Your task to perform on an android device: find photos in the google photos app Image 0: 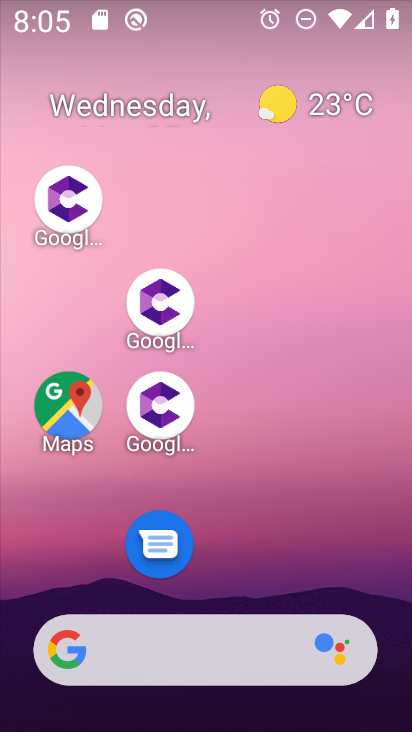
Step 0: drag from (270, 547) to (199, 78)
Your task to perform on an android device: find photos in the google photos app Image 1: 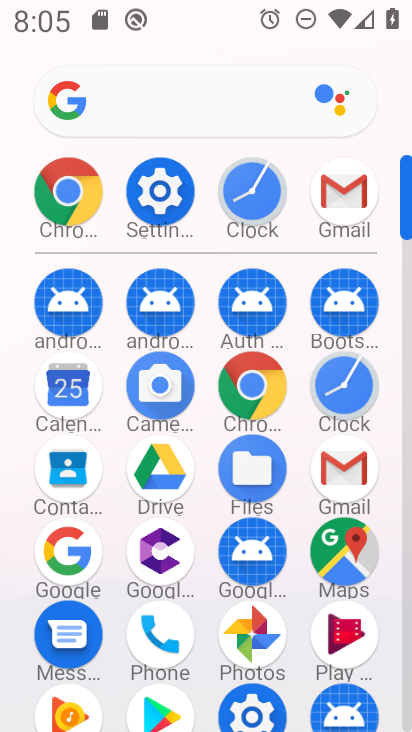
Step 1: click (256, 615)
Your task to perform on an android device: find photos in the google photos app Image 2: 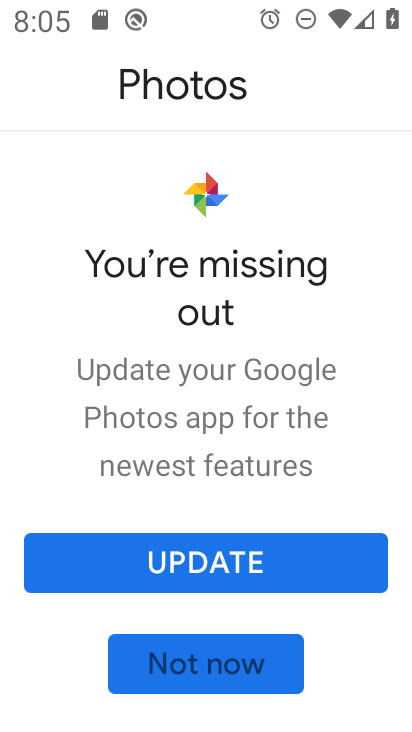
Step 2: click (208, 554)
Your task to perform on an android device: find photos in the google photos app Image 3: 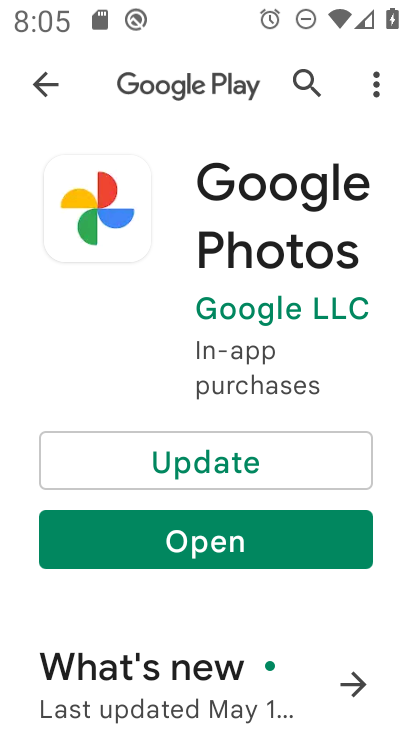
Step 3: click (193, 465)
Your task to perform on an android device: find photos in the google photos app Image 4: 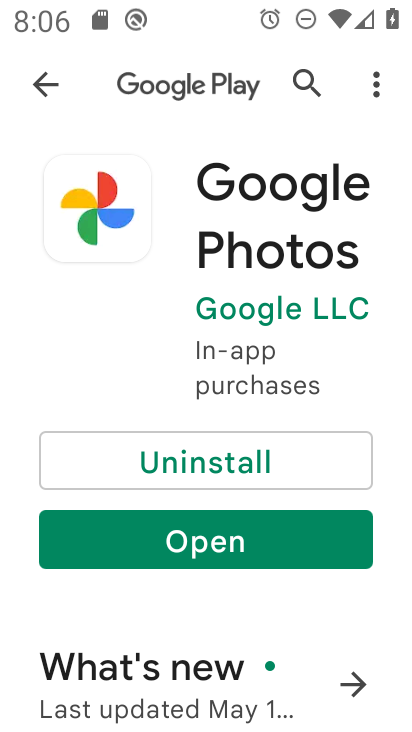
Step 4: click (236, 544)
Your task to perform on an android device: find photos in the google photos app Image 5: 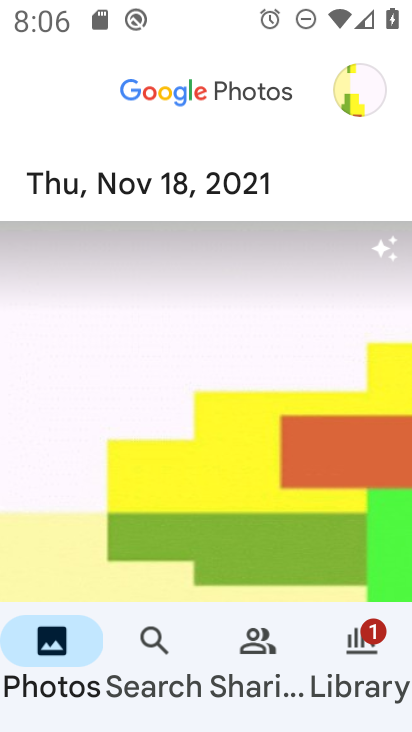
Step 5: click (149, 646)
Your task to perform on an android device: find photos in the google photos app Image 6: 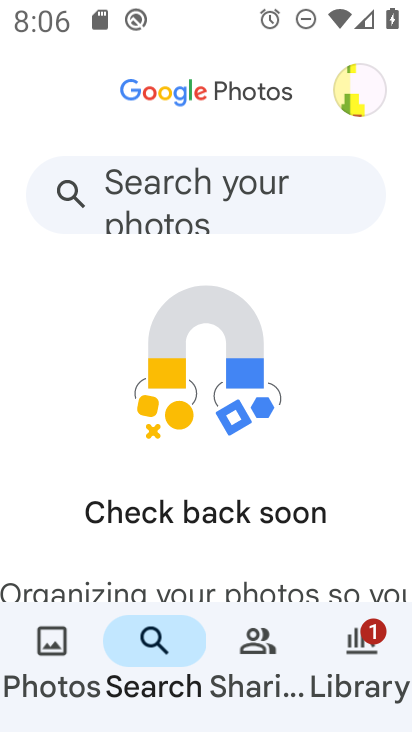
Step 6: task complete